Your task to perform on an android device: set default search engine in the chrome app Image 0: 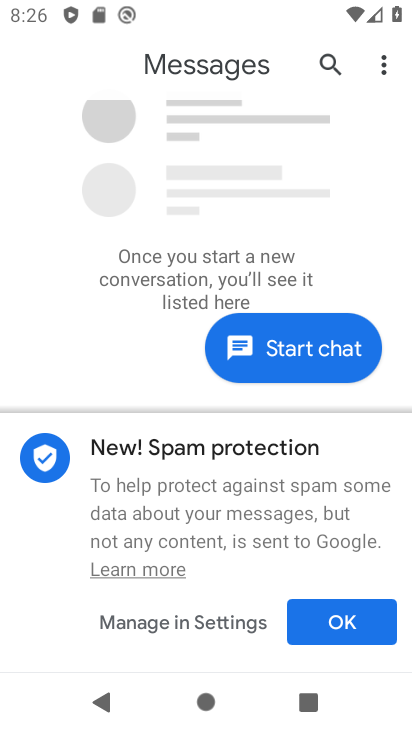
Step 0: press home button
Your task to perform on an android device: set default search engine in the chrome app Image 1: 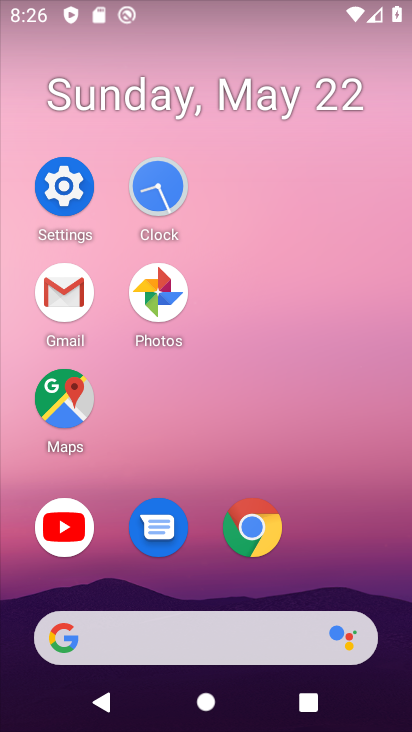
Step 1: click (254, 532)
Your task to perform on an android device: set default search engine in the chrome app Image 2: 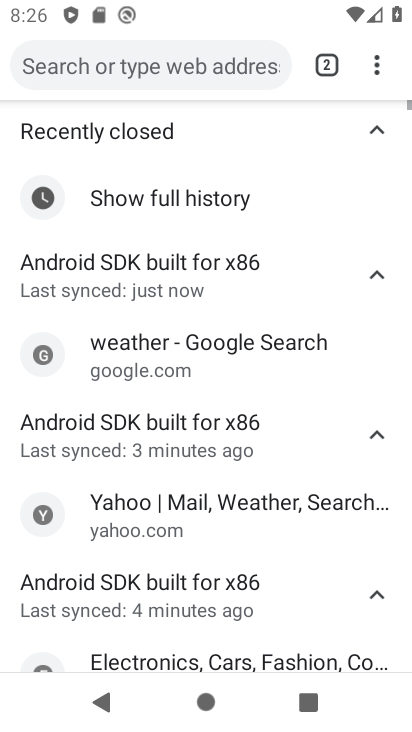
Step 2: click (375, 68)
Your task to perform on an android device: set default search engine in the chrome app Image 3: 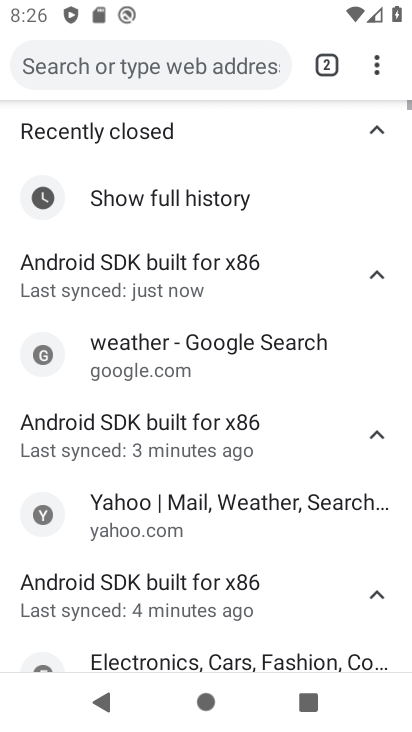
Step 3: click (384, 75)
Your task to perform on an android device: set default search engine in the chrome app Image 4: 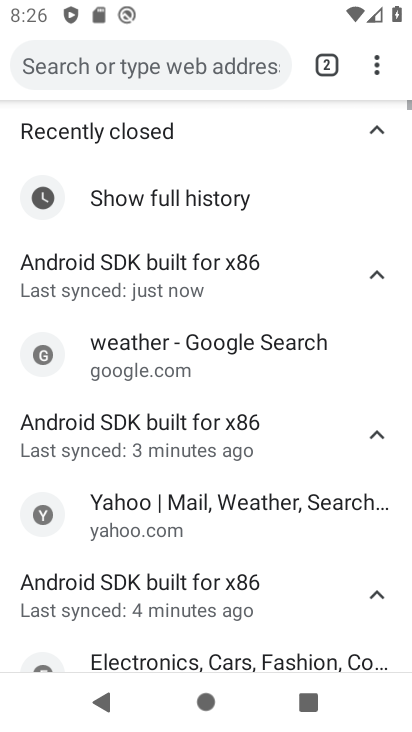
Step 4: click (386, 75)
Your task to perform on an android device: set default search engine in the chrome app Image 5: 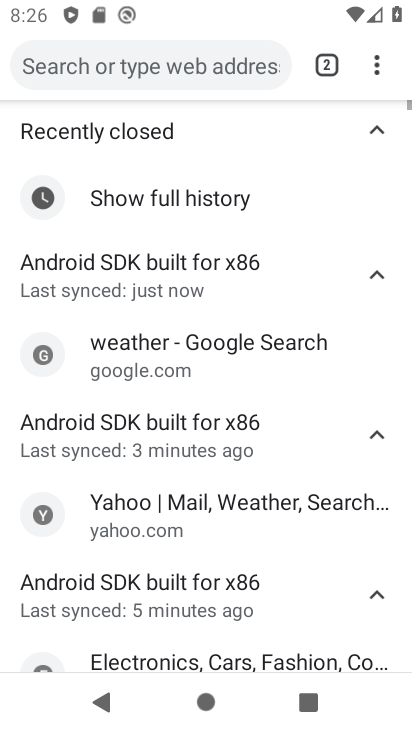
Step 5: click (378, 72)
Your task to perform on an android device: set default search engine in the chrome app Image 6: 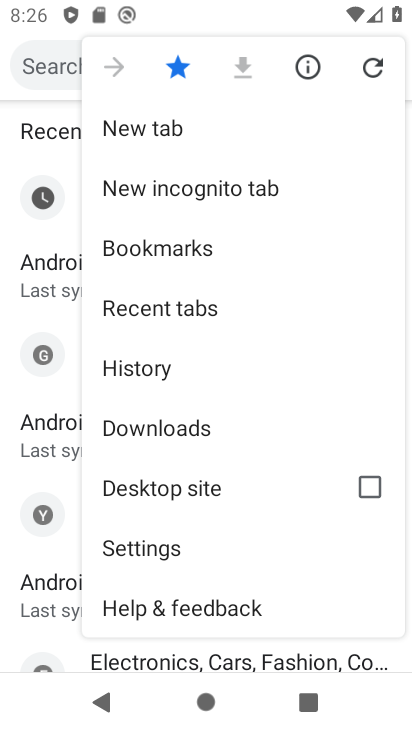
Step 6: drag from (216, 508) to (213, 186)
Your task to perform on an android device: set default search engine in the chrome app Image 7: 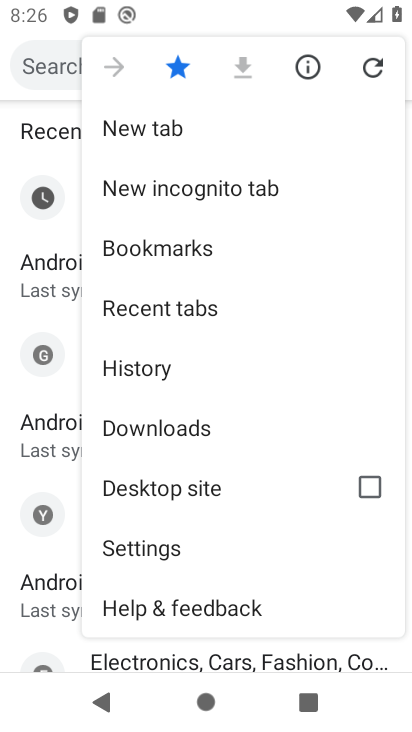
Step 7: click (178, 539)
Your task to perform on an android device: set default search engine in the chrome app Image 8: 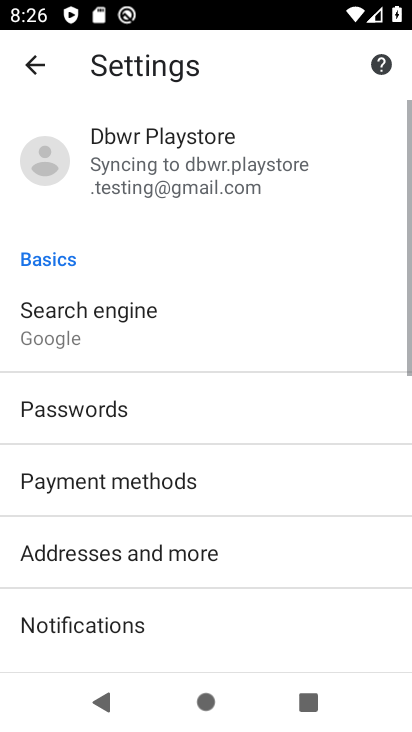
Step 8: click (247, 330)
Your task to perform on an android device: set default search engine in the chrome app Image 9: 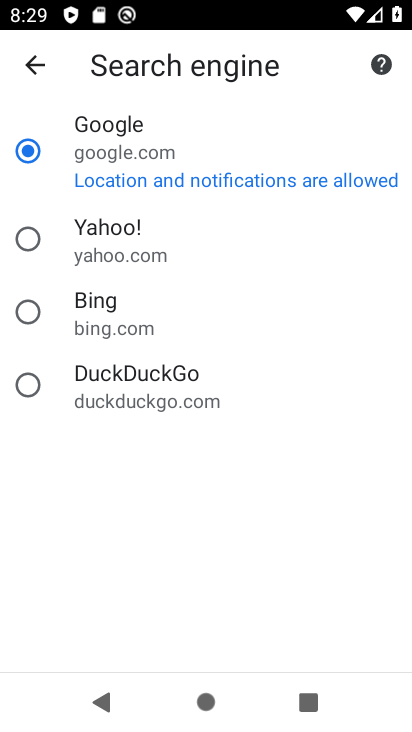
Step 9: task complete